Your task to perform on an android device: Go to Amazon Image 0: 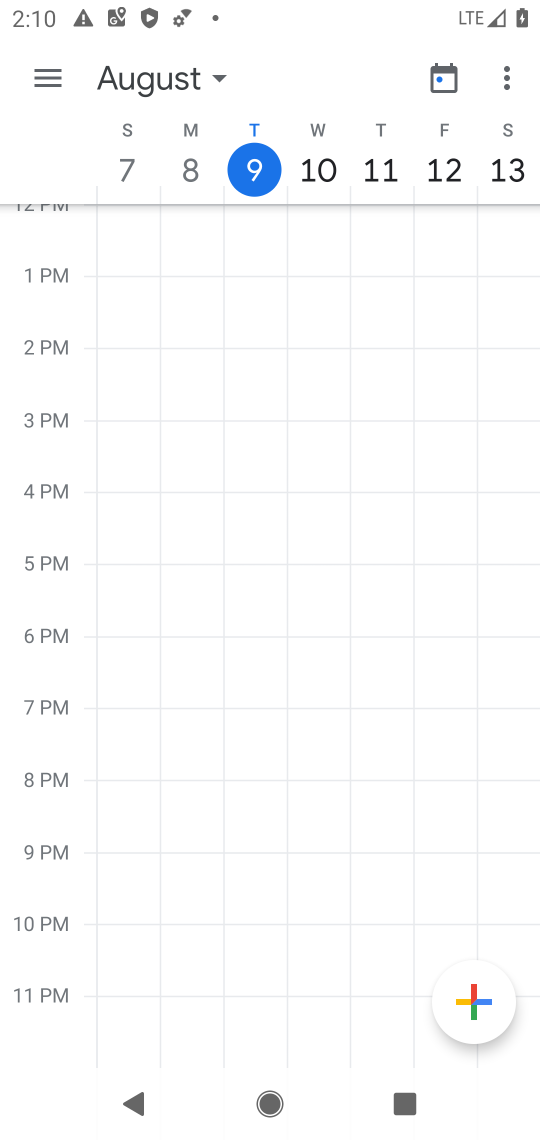
Step 0: press home button
Your task to perform on an android device: Go to Amazon Image 1: 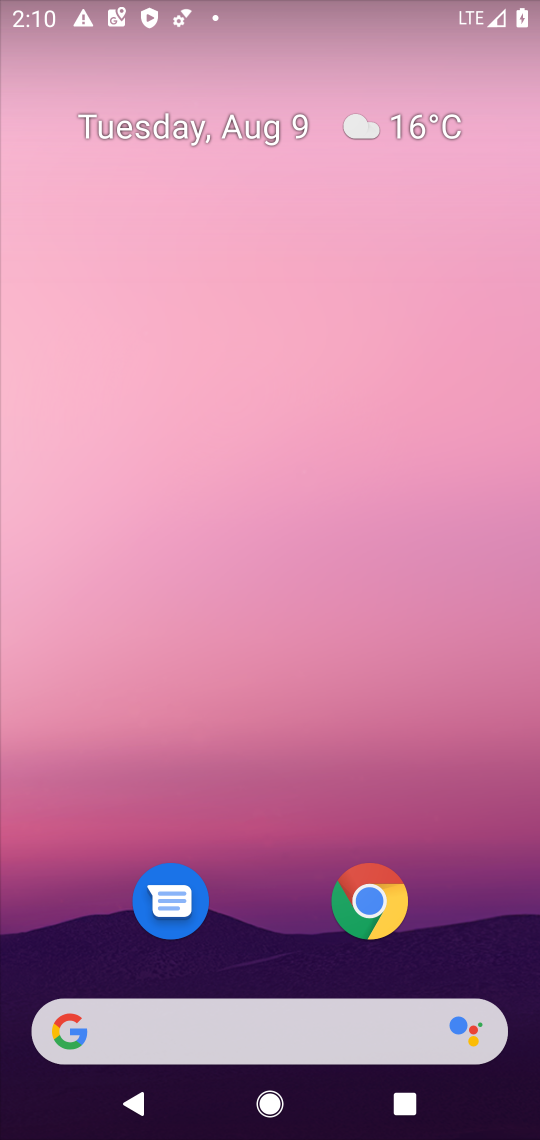
Step 1: click (384, 910)
Your task to perform on an android device: Go to Amazon Image 2: 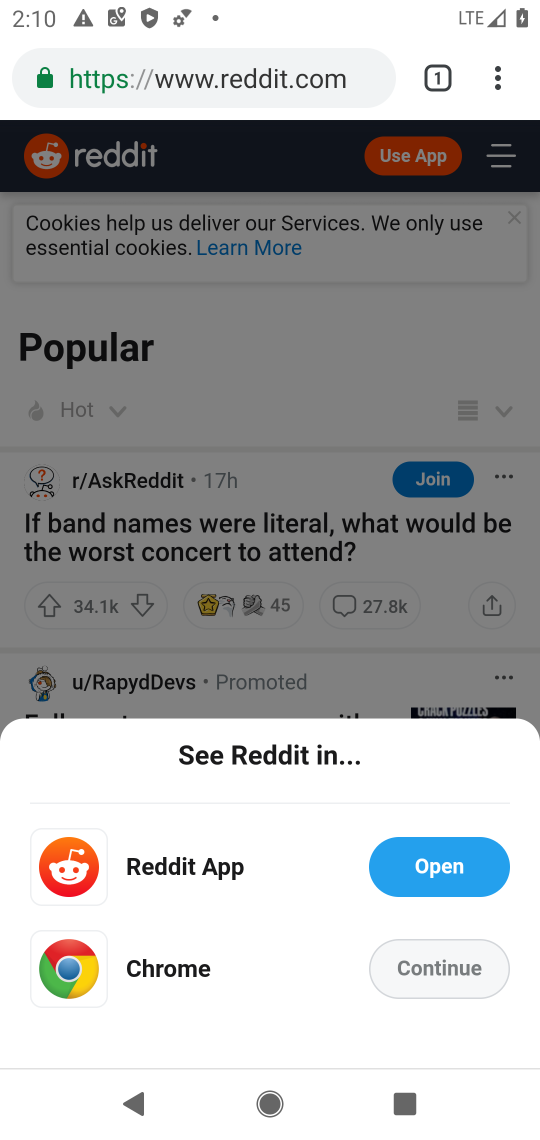
Step 2: click (363, 65)
Your task to perform on an android device: Go to Amazon Image 3: 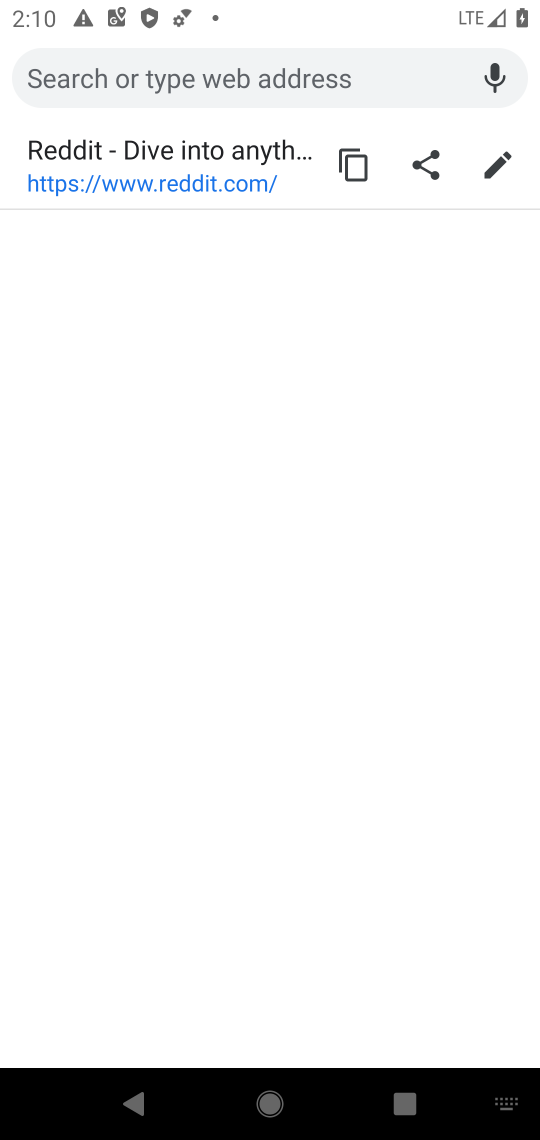
Step 3: type "amazon"
Your task to perform on an android device: Go to Amazon Image 4: 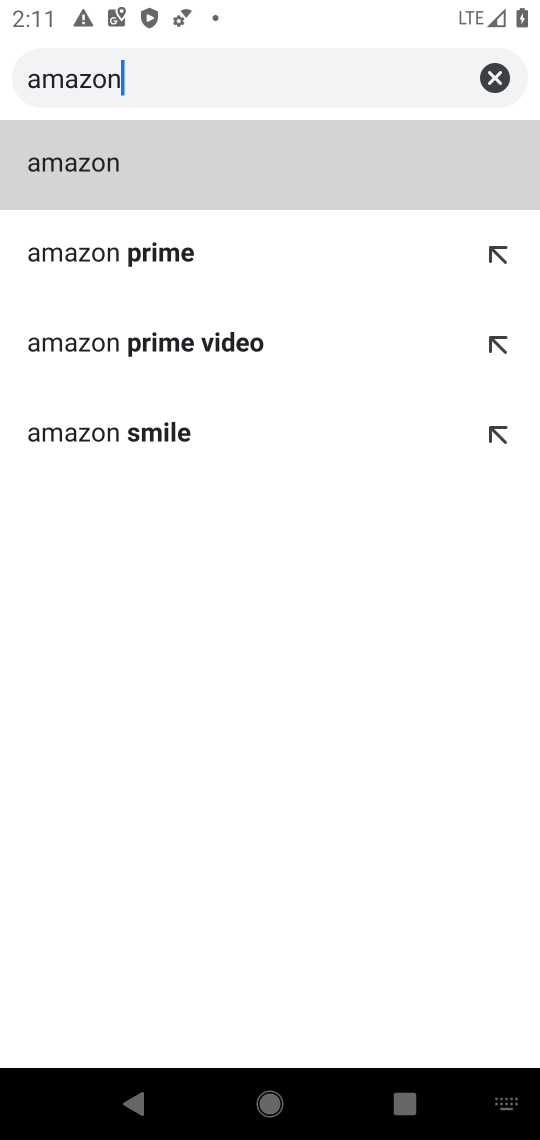
Step 4: click (106, 163)
Your task to perform on an android device: Go to Amazon Image 5: 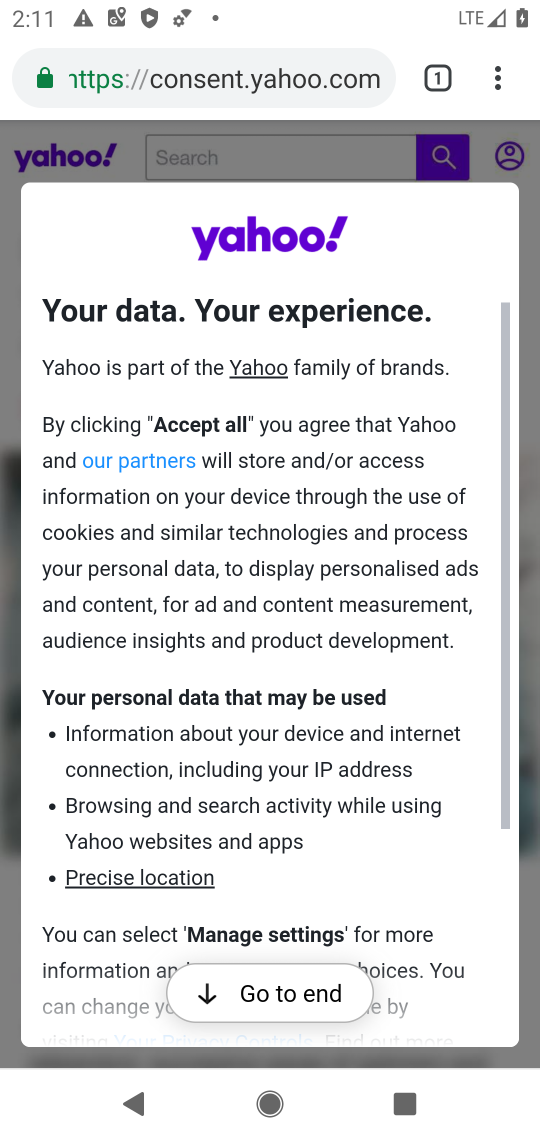
Step 5: click (255, 1000)
Your task to perform on an android device: Go to Amazon Image 6: 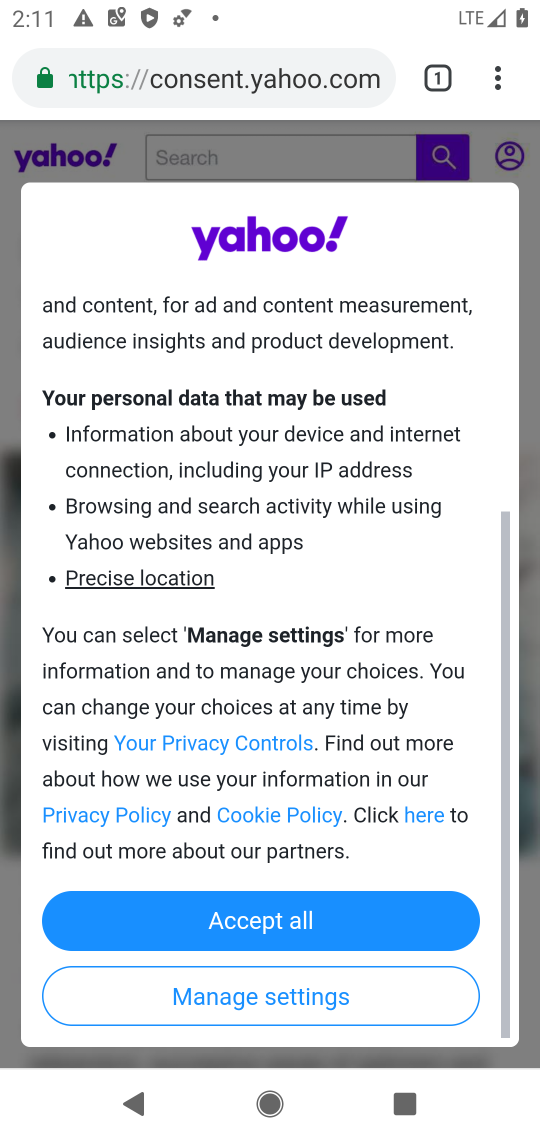
Step 6: click (260, 920)
Your task to perform on an android device: Go to Amazon Image 7: 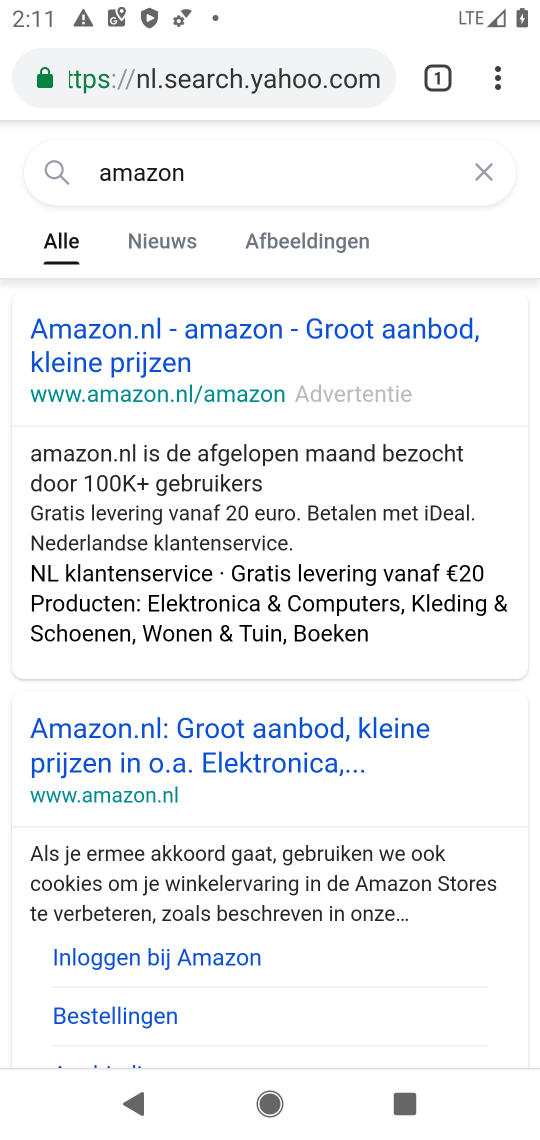
Step 7: click (105, 327)
Your task to perform on an android device: Go to Amazon Image 8: 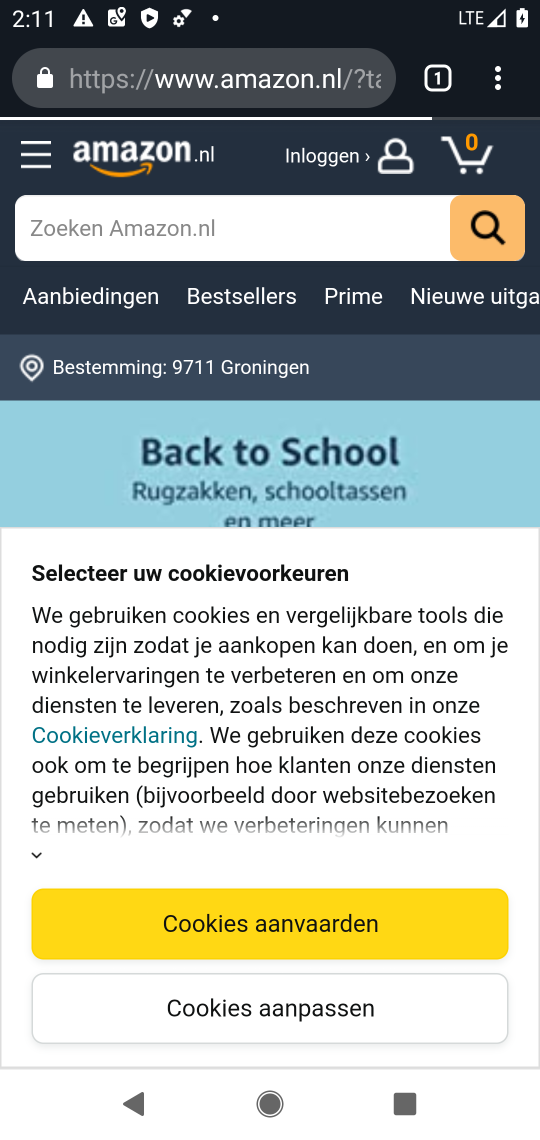
Step 8: task complete